Your task to perform on an android device: turn off sleep mode Image 0: 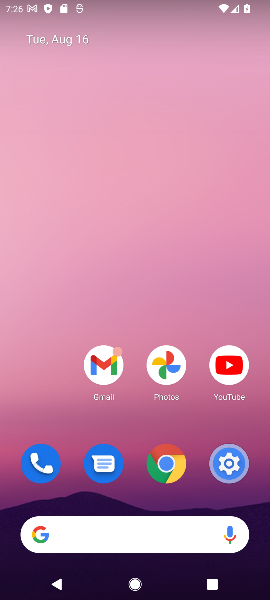
Step 0: drag from (114, 493) to (204, 10)
Your task to perform on an android device: turn off sleep mode Image 1: 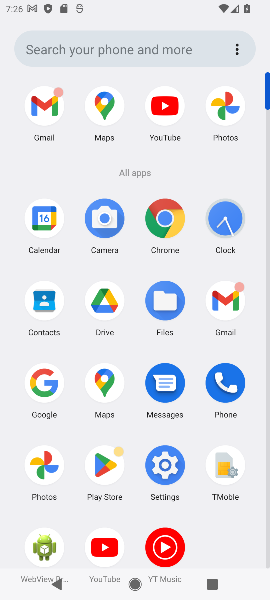
Step 1: click (171, 479)
Your task to perform on an android device: turn off sleep mode Image 2: 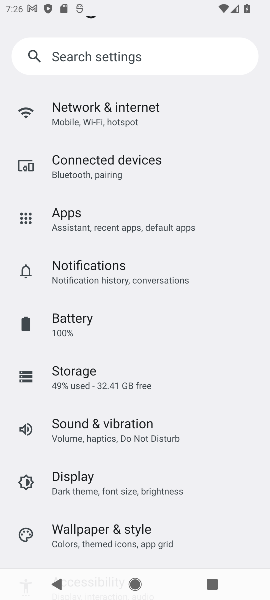
Step 2: click (115, 41)
Your task to perform on an android device: turn off sleep mode Image 3: 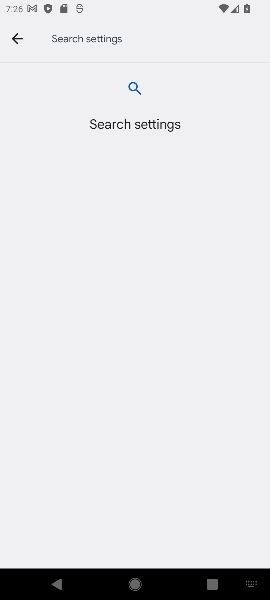
Step 3: type "sleep mode"
Your task to perform on an android device: turn off sleep mode Image 4: 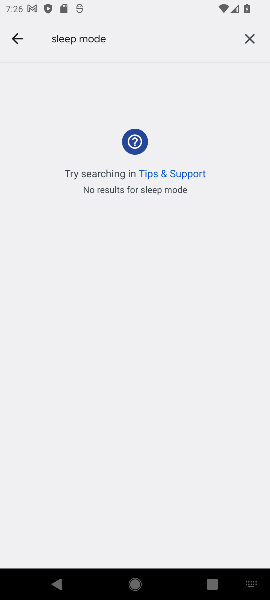
Step 4: task complete